Your task to perform on an android device: toggle translation in the chrome app Image 0: 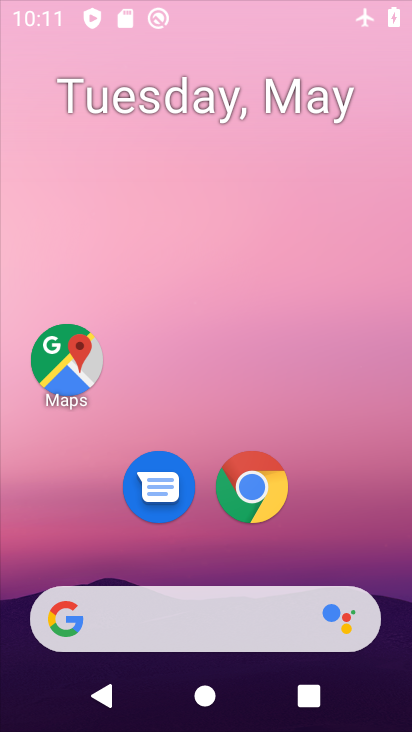
Step 0: drag from (280, 487) to (341, 160)
Your task to perform on an android device: toggle translation in the chrome app Image 1: 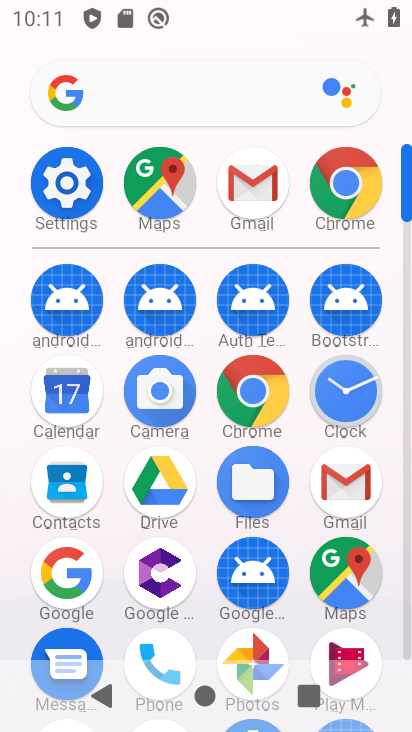
Step 1: click (350, 174)
Your task to perform on an android device: toggle translation in the chrome app Image 2: 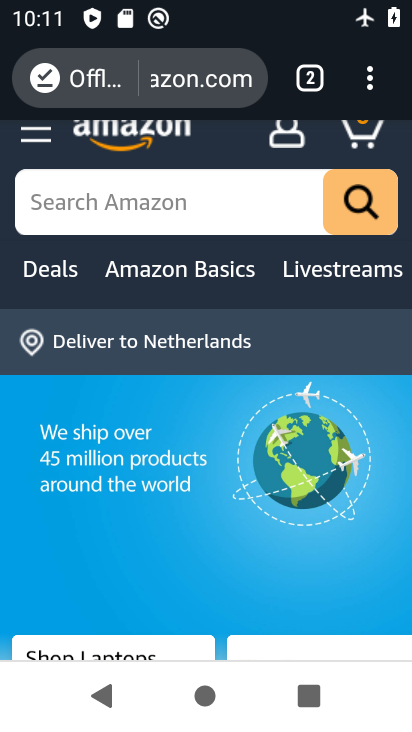
Step 2: click (377, 80)
Your task to perform on an android device: toggle translation in the chrome app Image 3: 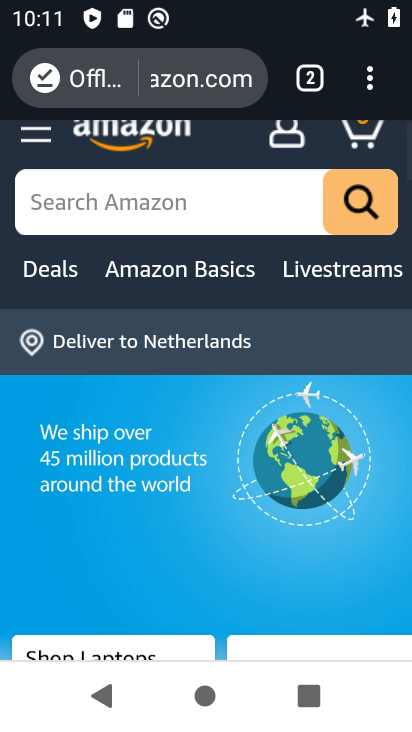
Step 3: click (377, 80)
Your task to perform on an android device: toggle translation in the chrome app Image 4: 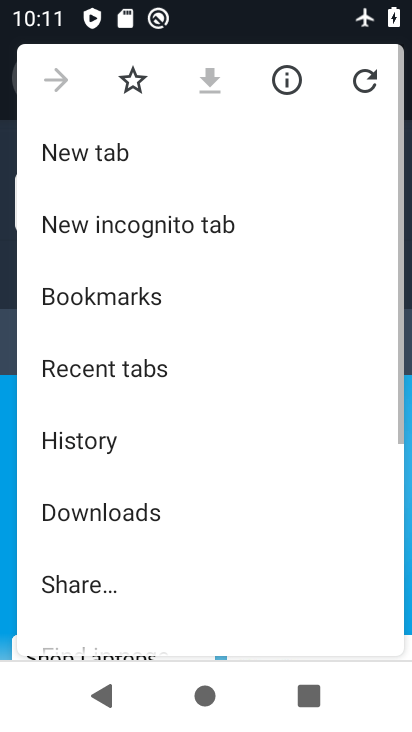
Step 4: drag from (166, 580) to (359, 49)
Your task to perform on an android device: toggle translation in the chrome app Image 5: 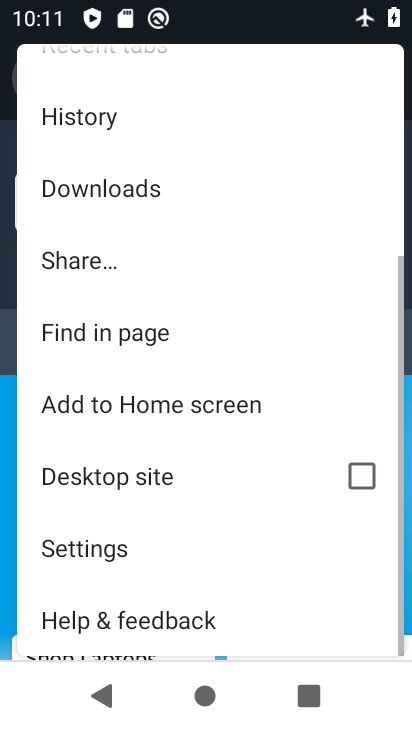
Step 5: click (130, 549)
Your task to perform on an android device: toggle translation in the chrome app Image 6: 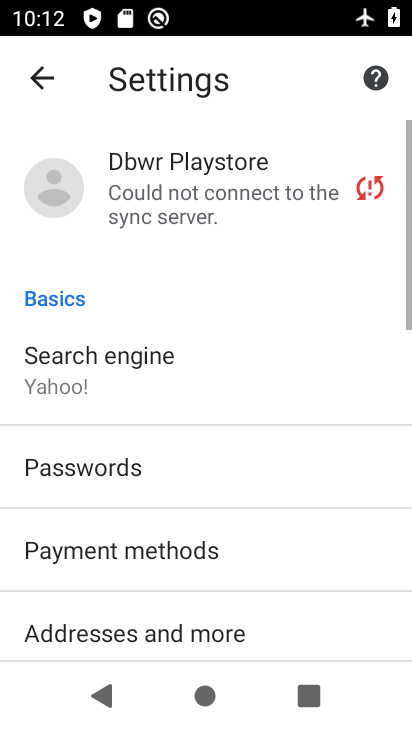
Step 6: drag from (131, 486) to (322, 49)
Your task to perform on an android device: toggle translation in the chrome app Image 7: 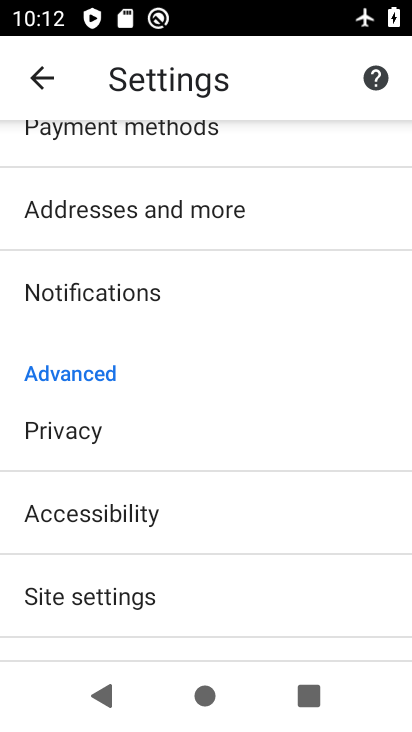
Step 7: drag from (141, 593) to (240, 159)
Your task to perform on an android device: toggle translation in the chrome app Image 8: 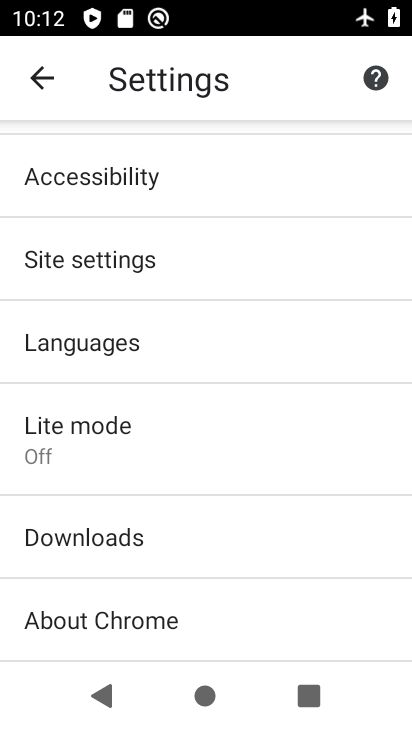
Step 8: click (108, 446)
Your task to perform on an android device: toggle translation in the chrome app Image 9: 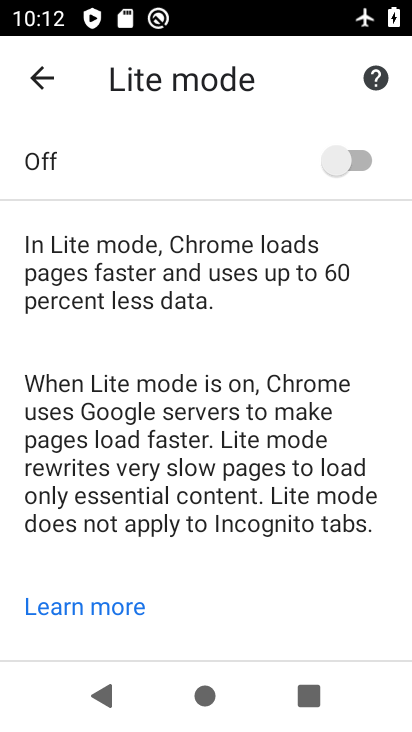
Step 9: drag from (231, 529) to (296, 212)
Your task to perform on an android device: toggle translation in the chrome app Image 10: 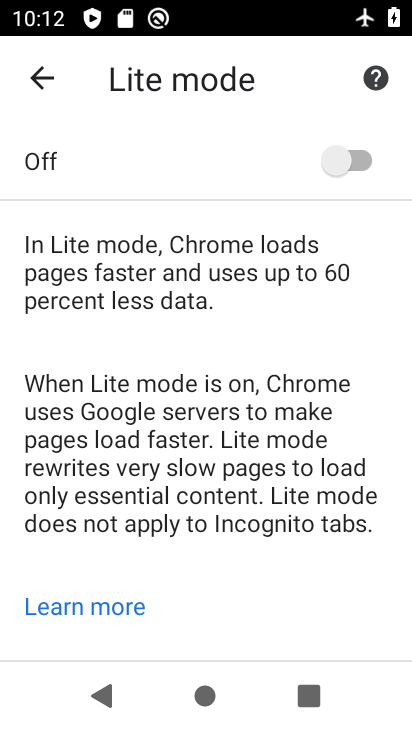
Step 10: click (37, 73)
Your task to perform on an android device: toggle translation in the chrome app Image 11: 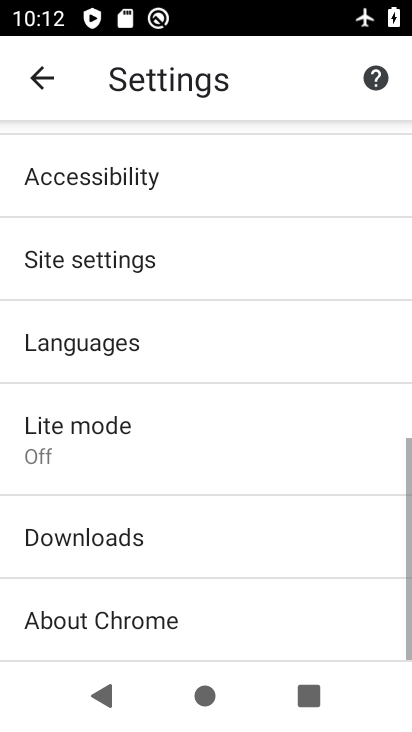
Step 11: click (114, 351)
Your task to perform on an android device: toggle translation in the chrome app Image 12: 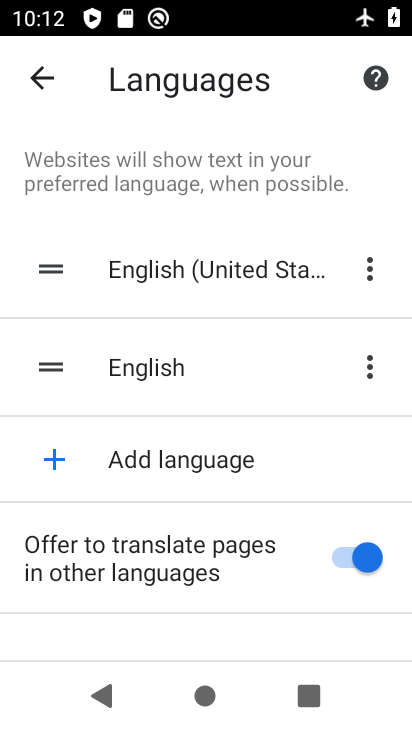
Step 12: click (356, 547)
Your task to perform on an android device: toggle translation in the chrome app Image 13: 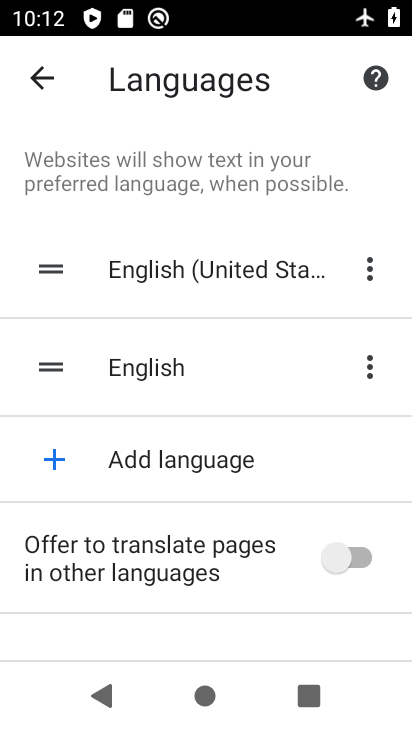
Step 13: task complete